Your task to perform on an android device: Open eBay Image 0: 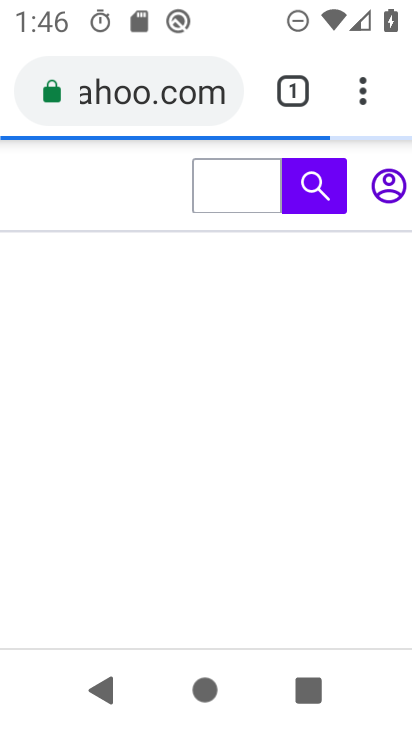
Step 0: press home button
Your task to perform on an android device: Open eBay Image 1: 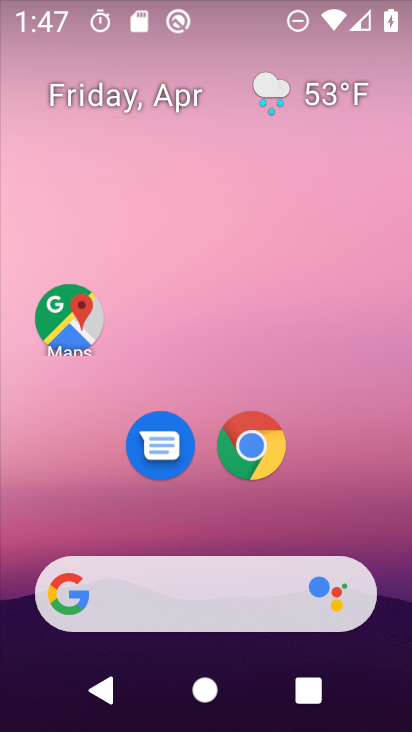
Step 1: drag from (354, 512) to (377, 127)
Your task to perform on an android device: Open eBay Image 2: 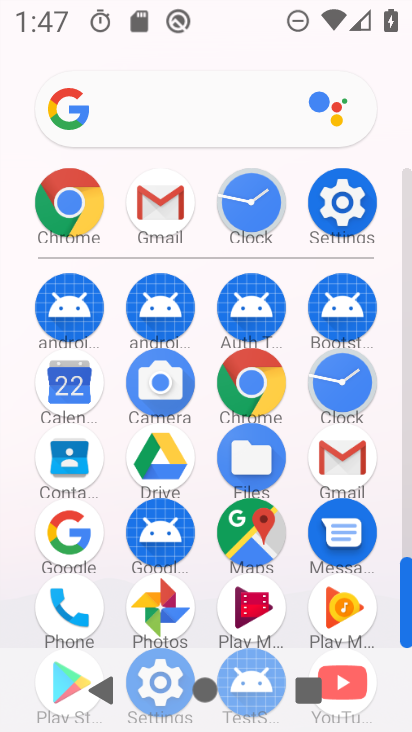
Step 2: click (274, 383)
Your task to perform on an android device: Open eBay Image 3: 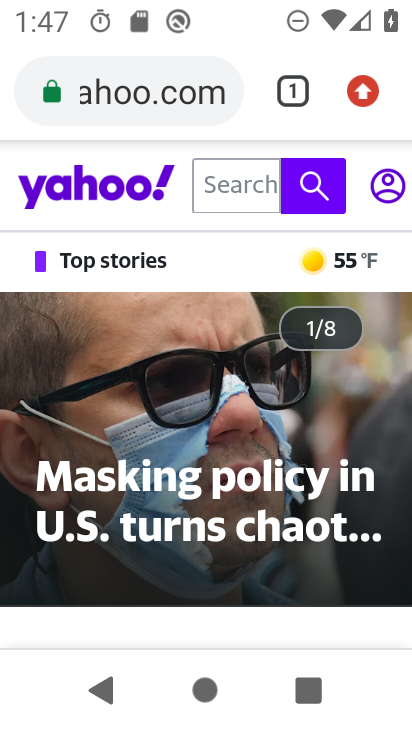
Step 3: click (177, 97)
Your task to perform on an android device: Open eBay Image 4: 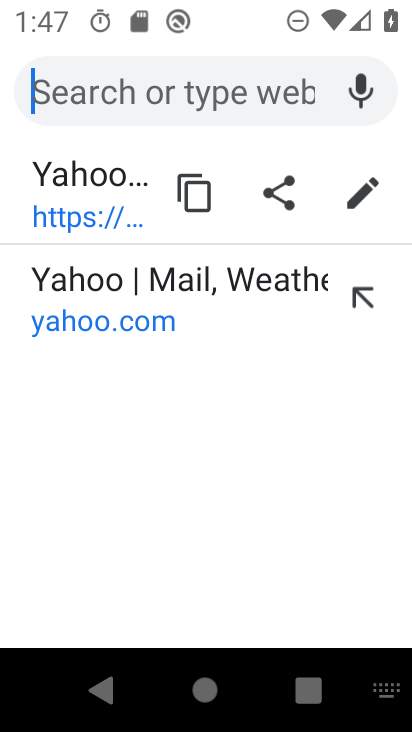
Step 4: type "ebay"
Your task to perform on an android device: Open eBay Image 5: 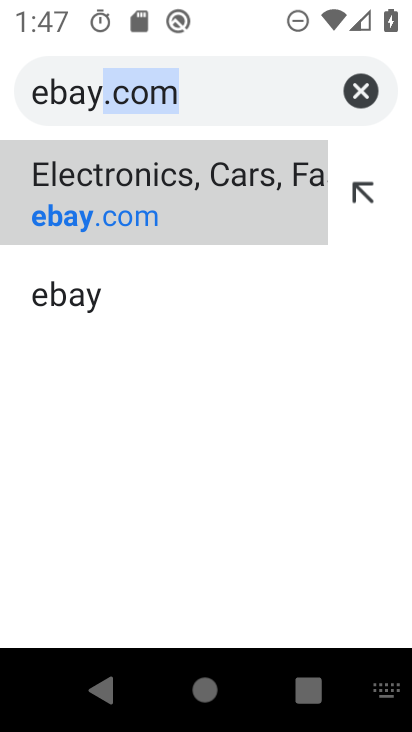
Step 5: click (140, 205)
Your task to perform on an android device: Open eBay Image 6: 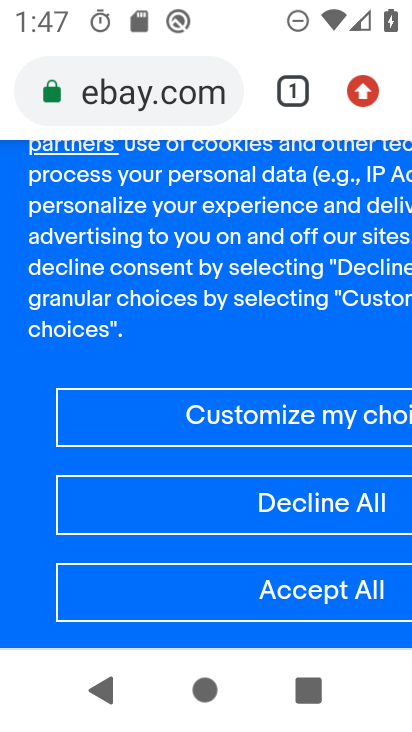
Step 6: task complete